Your task to perform on an android device: Do I have any events today? Image 0: 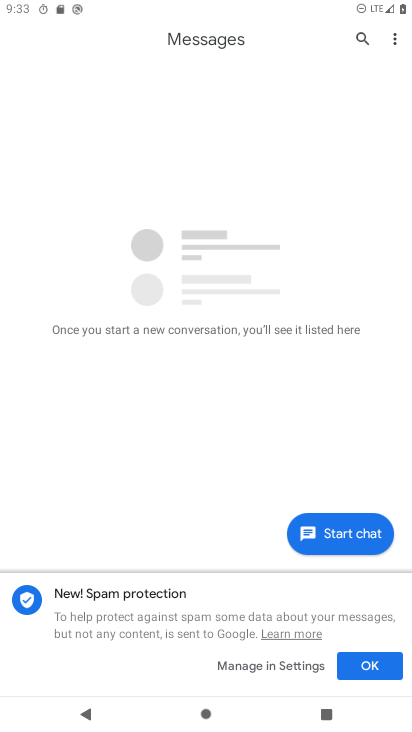
Step 0: press home button
Your task to perform on an android device: Do I have any events today? Image 1: 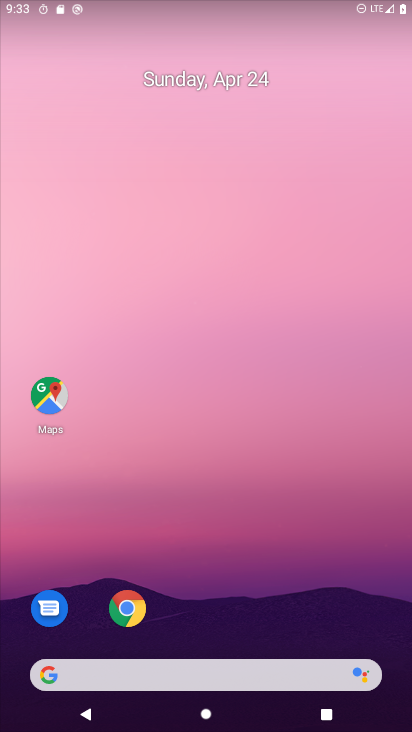
Step 1: drag from (181, 552) to (222, 78)
Your task to perform on an android device: Do I have any events today? Image 2: 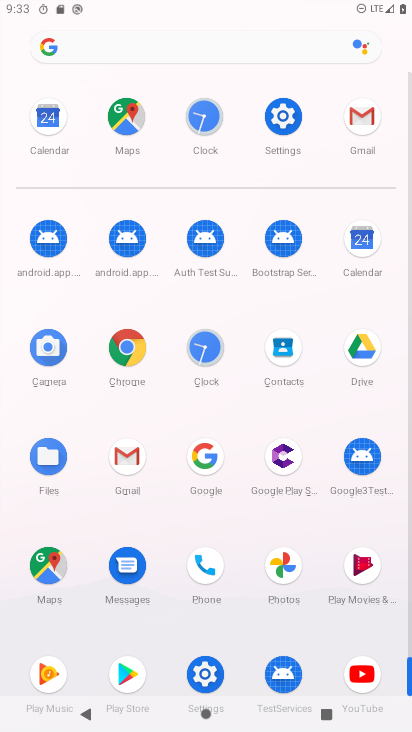
Step 2: click (50, 111)
Your task to perform on an android device: Do I have any events today? Image 3: 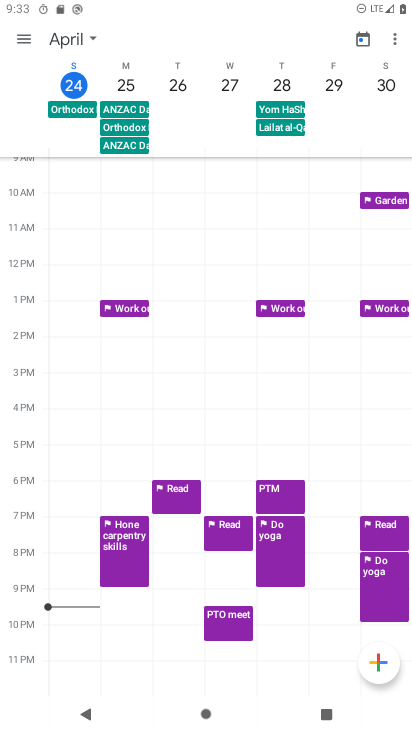
Step 3: click (73, 83)
Your task to perform on an android device: Do I have any events today? Image 4: 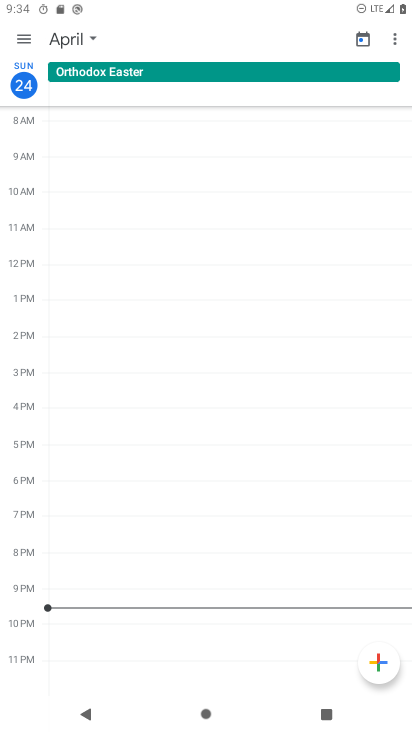
Step 4: task complete